Your task to perform on an android device: turn on translation in the chrome app Image 0: 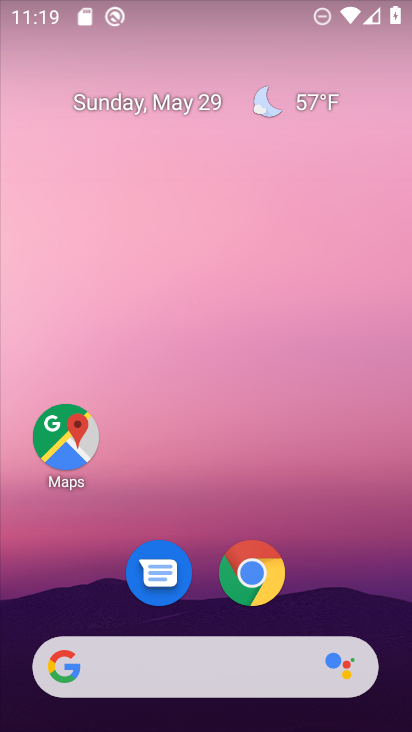
Step 0: drag from (288, 713) to (303, 48)
Your task to perform on an android device: turn on translation in the chrome app Image 1: 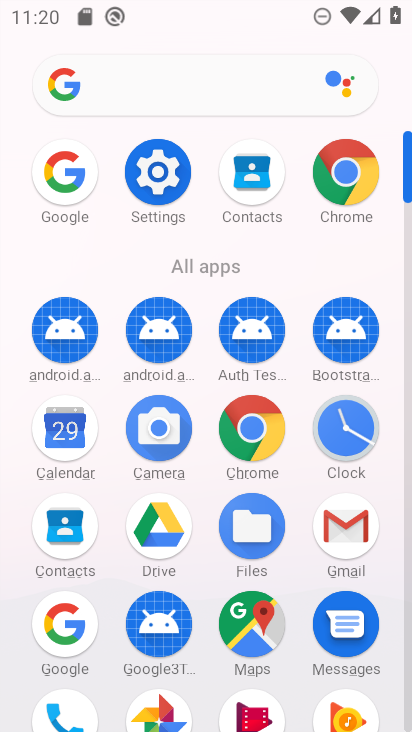
Step 1: click (253, 431)
Your task to perform on an android device: turn on translation in the chrome app Image 2: 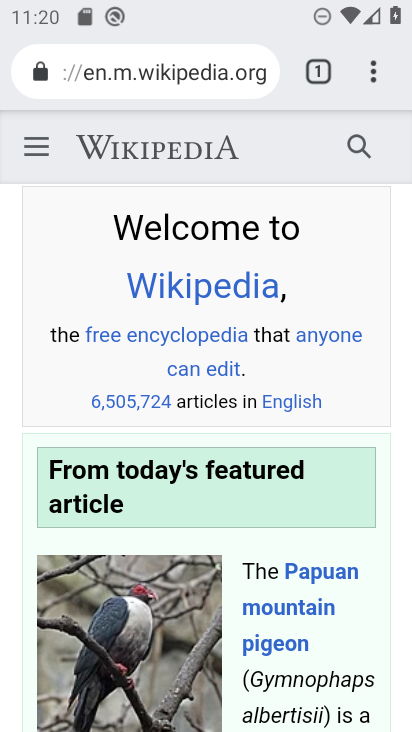
Step 2: drag from (370, 69) to (157, 569)
Your task to perform on an android device: turn on translation in the chrome app Image 3: 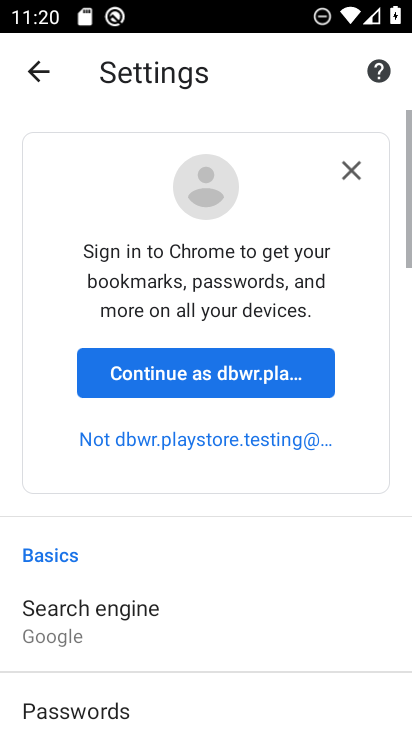
Step 3: drag from (228, 521) to (243, 68)
Your task to perform on an android device: turn on translation in the chrome app Image 4: 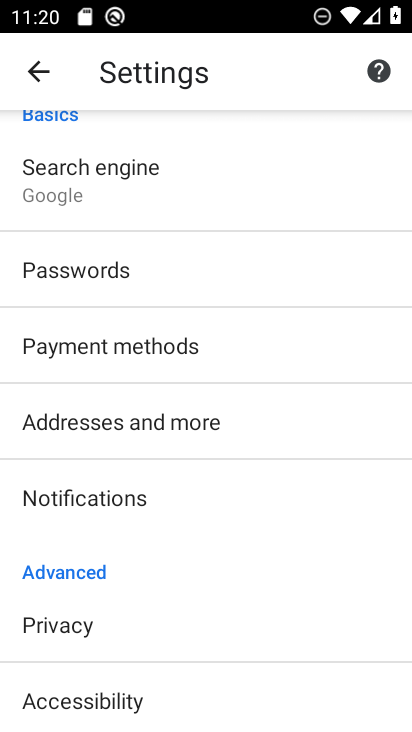
Step 4: drag from (168, 619) to (217, 65)
Your task to perform on an android device: turn on translation in the chrome app Image 5: 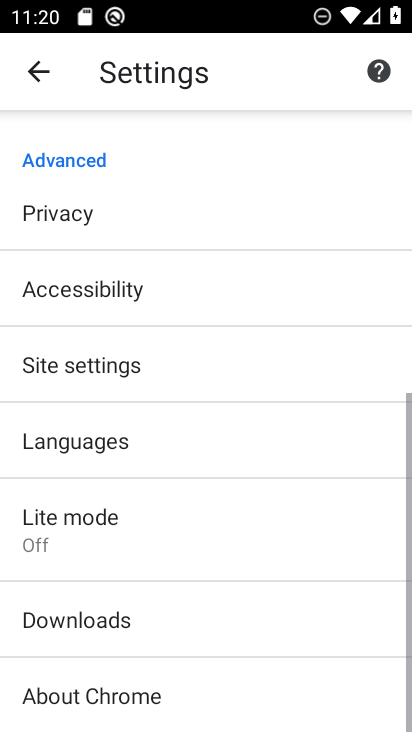
Step 5: click (141, 360)
Your task to perform on an android device: turn on translation in the chrome app Image 6: 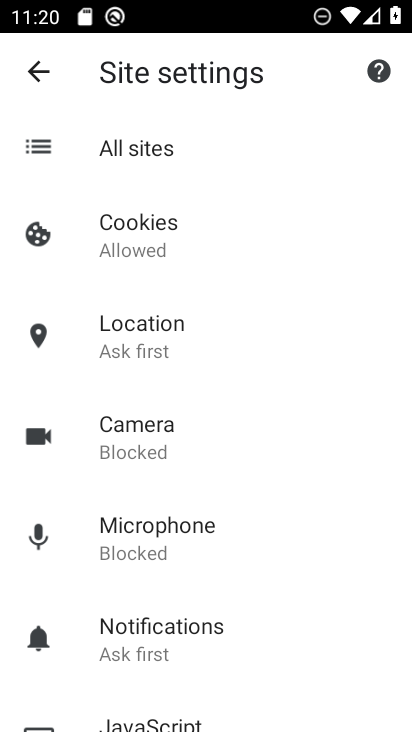
Step 6: press back button
Your task to perform on an android device: turn on translation in the chrome app Image 7: 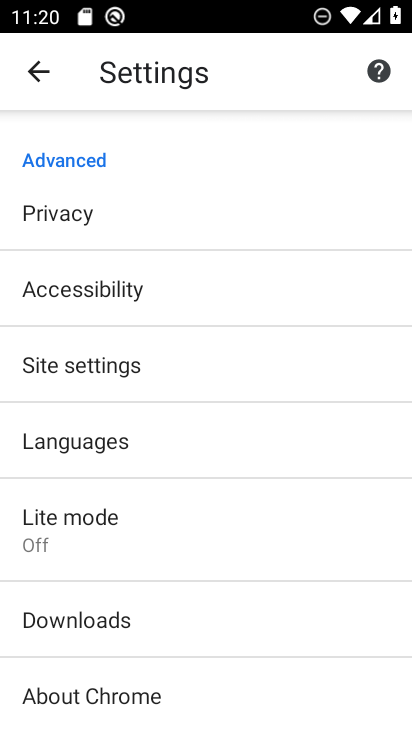
Step 7: click (173, 423)
Your task to perform on an android device: turn on translation in the chrome app Image 8: 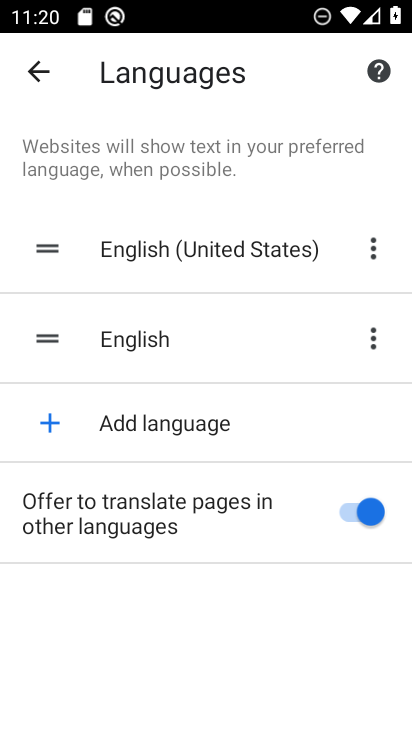
Step 8: task complete